Your task to perform on an android device: Clear the shopping cart on ebay.com. Search for "asus zenbook" on ebay.com, select the first entry, and add it to the cart. Image 0: 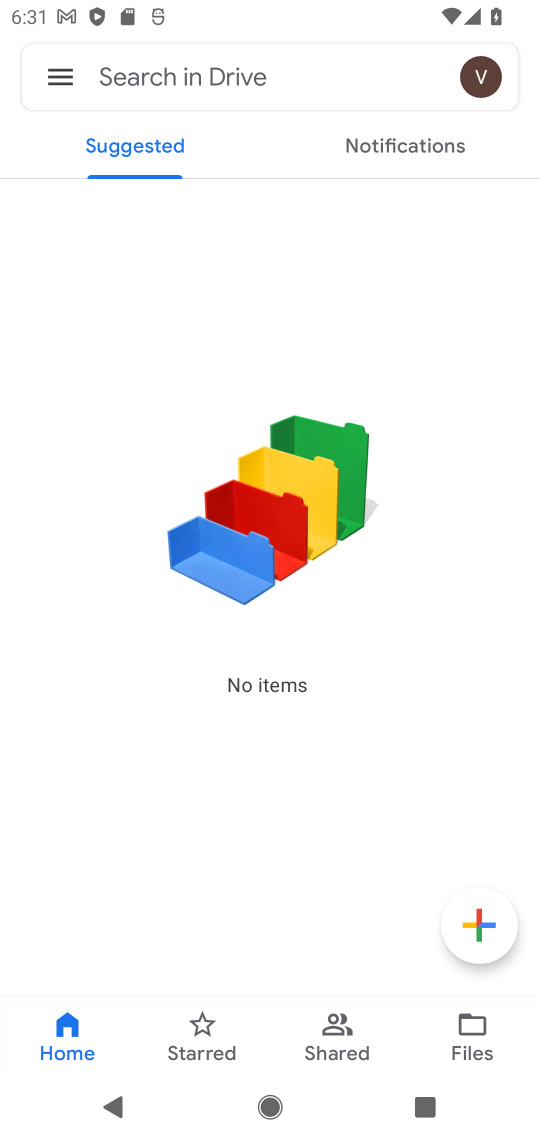
Step 0: press home button
Your task to perform on an android device: Clear the shopping cart on ebay.com. Search for "asus zenbook" on ebay.com, select the first entry, and add it to the cart. Image 1: 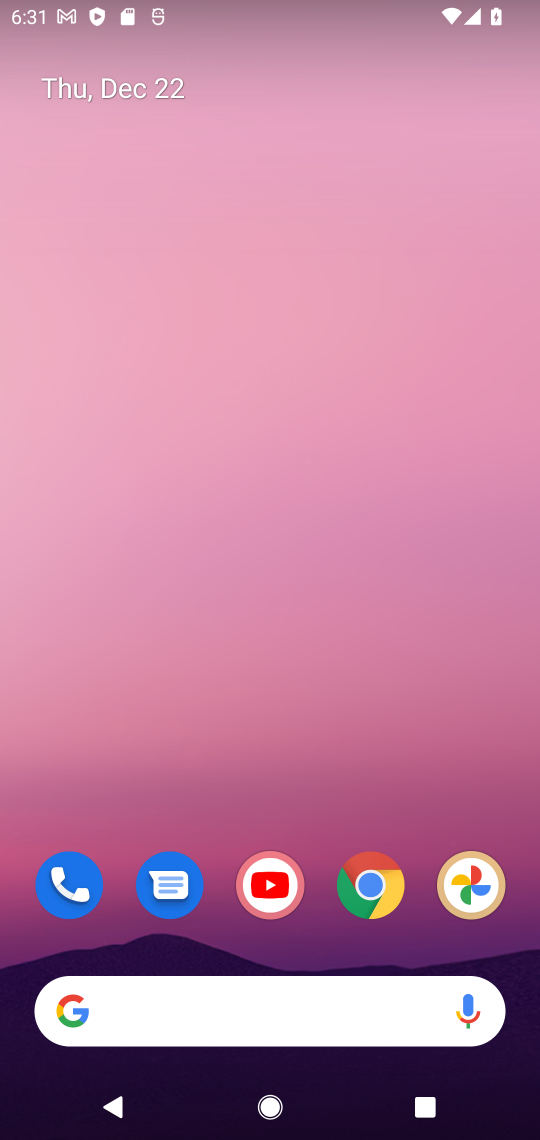
Step 1: click (378, 896)
Your task to perform on an android device: Clear the shopping cart on ebay.com. Search for "asus zenbook" on ebay.com, select the first entry, and add it to the cart. Image 2: 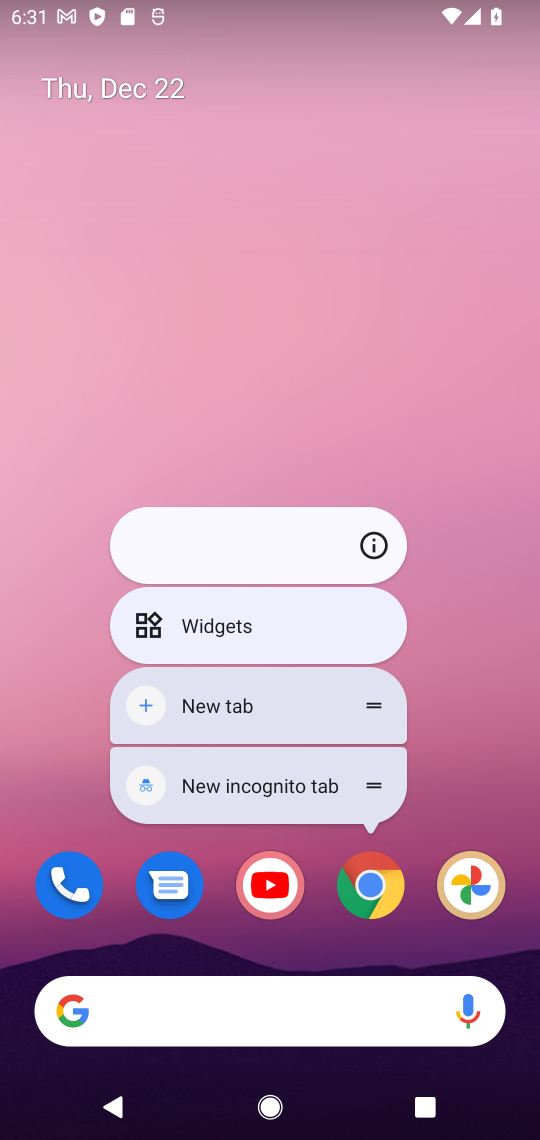
Step 2: click (378, 896)
Your task to perform on an android device: Clear the shopping cart on ebay.com. Search for "asus zenbook" on ebay.com, select the first entry, and add it to the cart. Image 3: 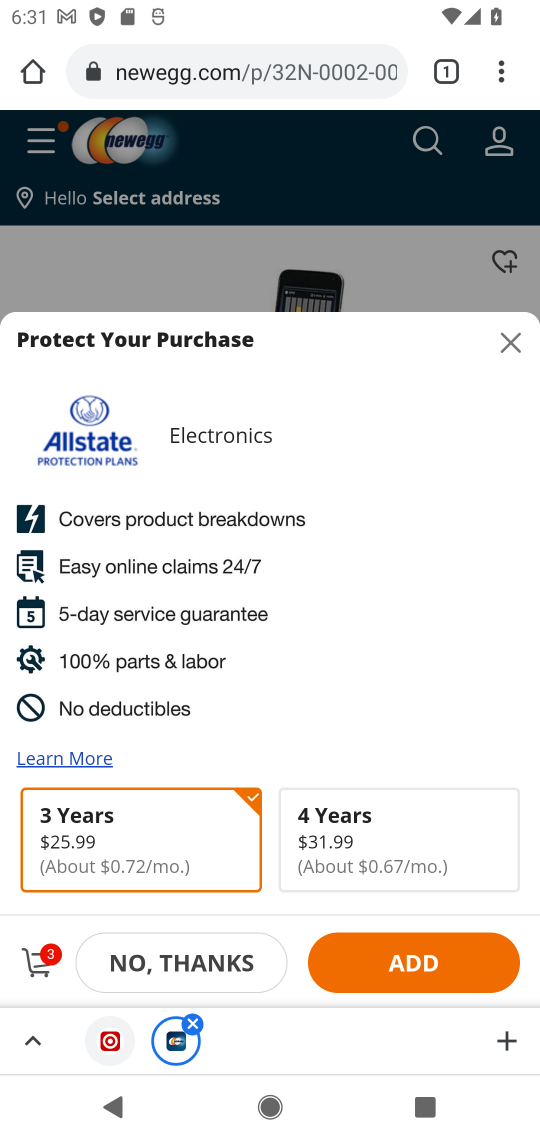
Step 3: click (183, 76)
Your task to perform on an android device: Clear the shopping cart on ebay.com. Search for "asus zenbook" on ebay.com, select the first entry, and add it to the cart. Image 4: 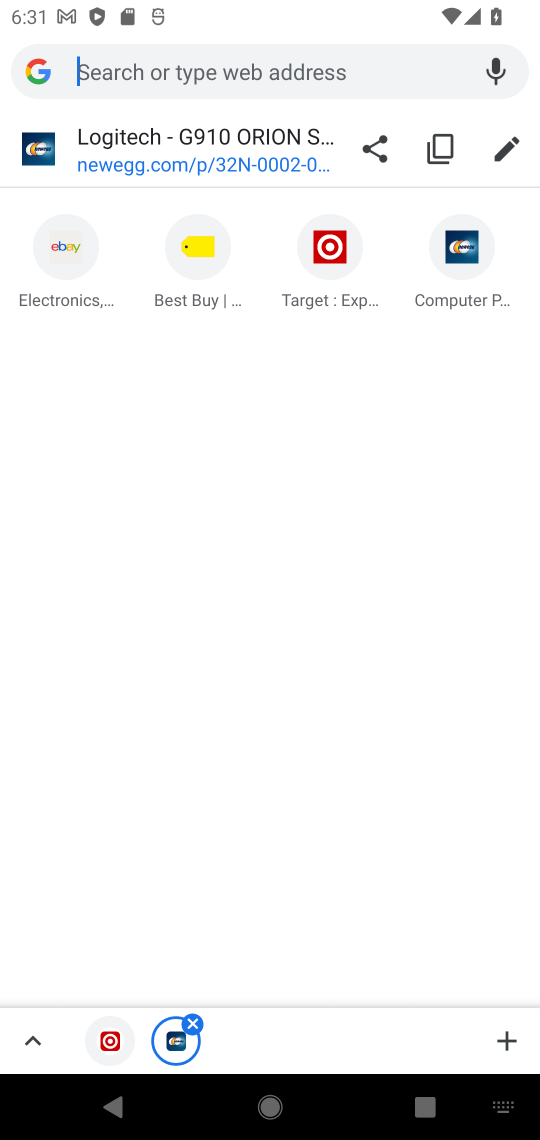
Step 4: click (58, 266)
Your task to perform on an android device: Clear the shopping cart on ebay.com. Search for "asus zenbook" on ebay.com, select the first entry, and add it to the cart. Image 5: 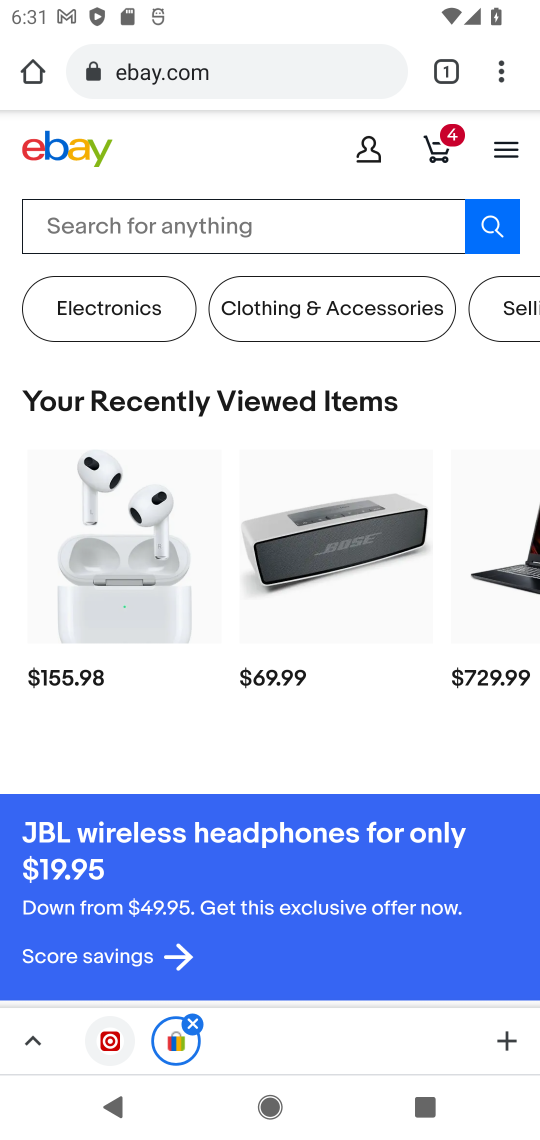
Step 5: click (443, 144)
Your task to perform on an android device: Clear the shopping cart on ebay.com. Search for "asus zenbook" on ebay.com, select the first entry, and add it to the cart. Image 6: 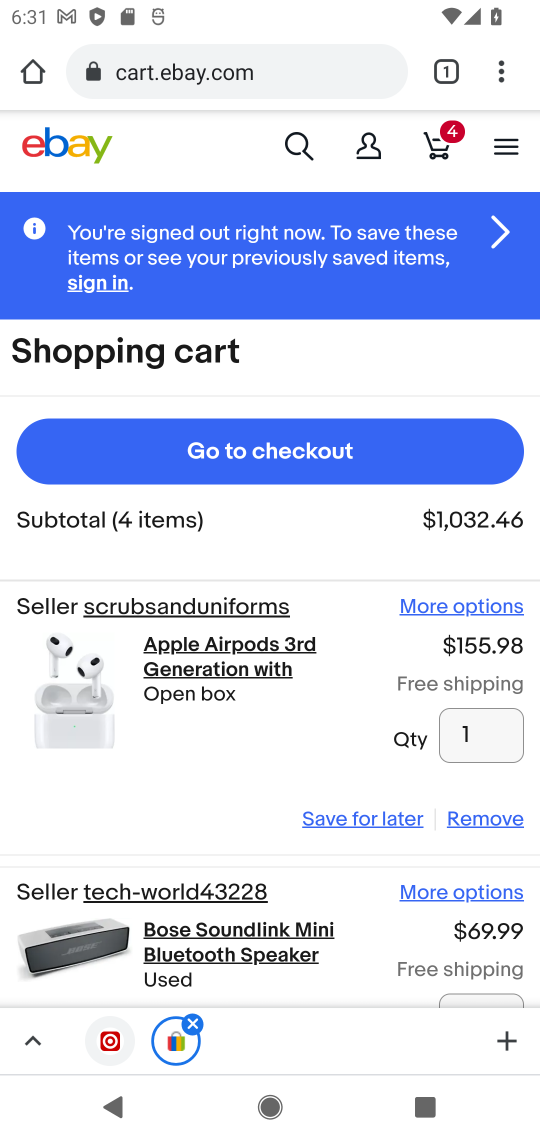
Step 6: click (473, 823)
Your task to perform on an android device: Clear the shopping cart on ebay.com. Search for "asus zenbook" on ebay.com, select the first entry, and add it to the cart. Image 7: 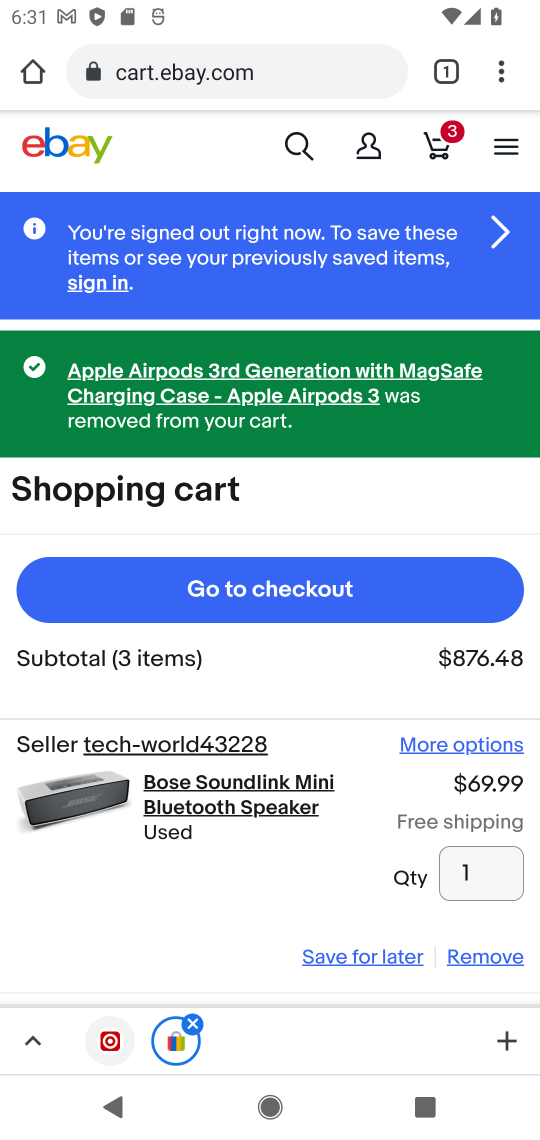
Step 7: click (468, 959)
Your task to perform on an android device: Clear the shopping cart on ebay.com. Search for "asus zenbook" on ebay.com, select the first entry, and add it to the cart. Image 8: 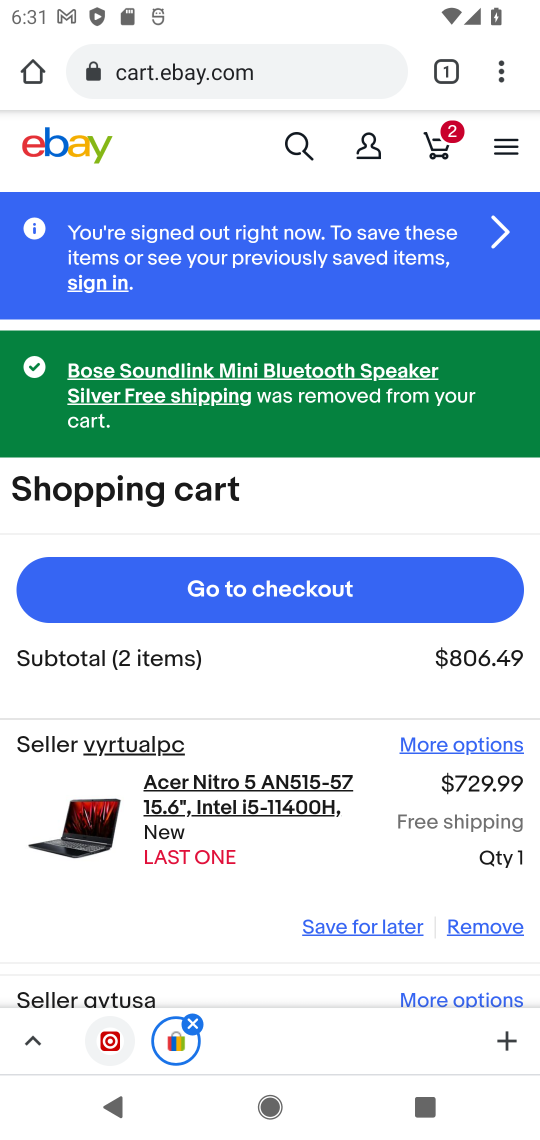
Step 8: click (485, 931)
Your task to perform on an android device: Clear the shopping cart on ebay.com. Search for "asus zenbook" on ebay.com, select the first entry, and add it to the cart. Image 9: 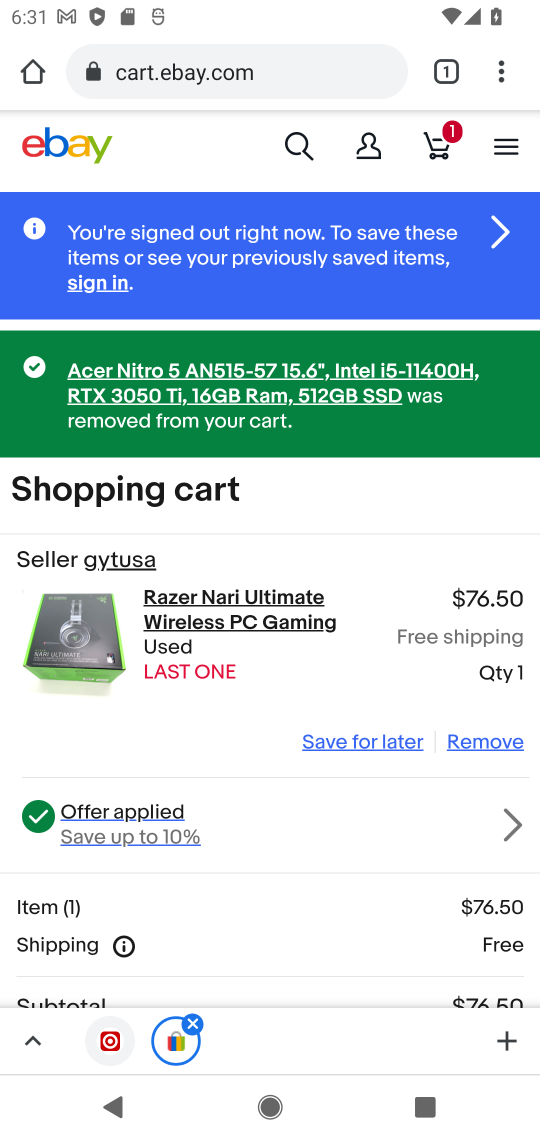
Step 9: click (486, 747)
Your task to perform on an android device: Clear the shopping cart on ebay.com. Search for "asus zenbook" on ebay.com, select the first entry, and add it to the cart. Image 10: 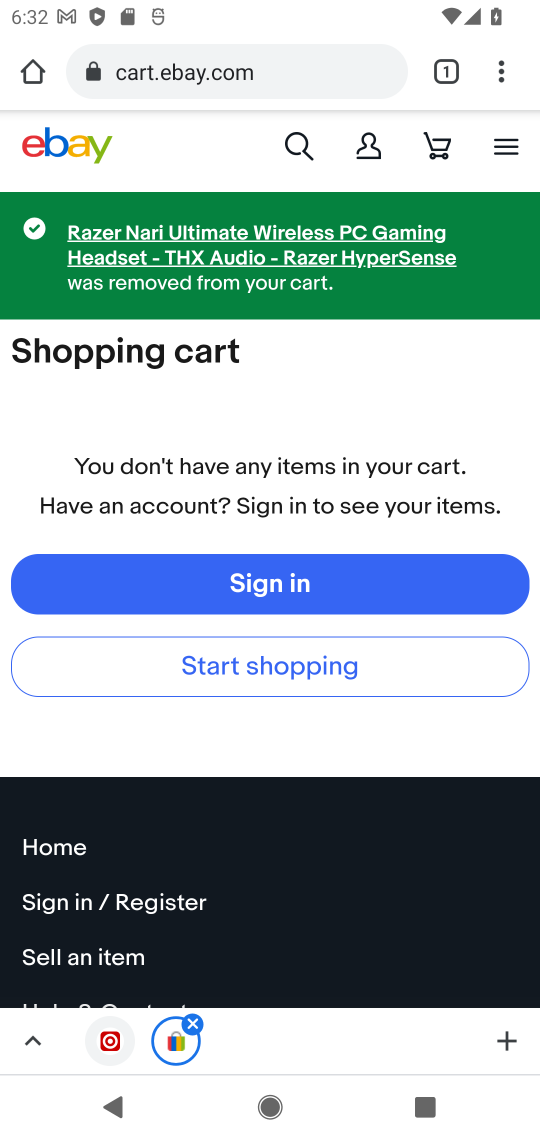
Step 10: click (302, 156)
Your task to perform on an android device: Clear the shopping cart on ebay.com. Search for "asus zenbook" on ebay.com, select the first entry, and add it to the cart. Image 11: 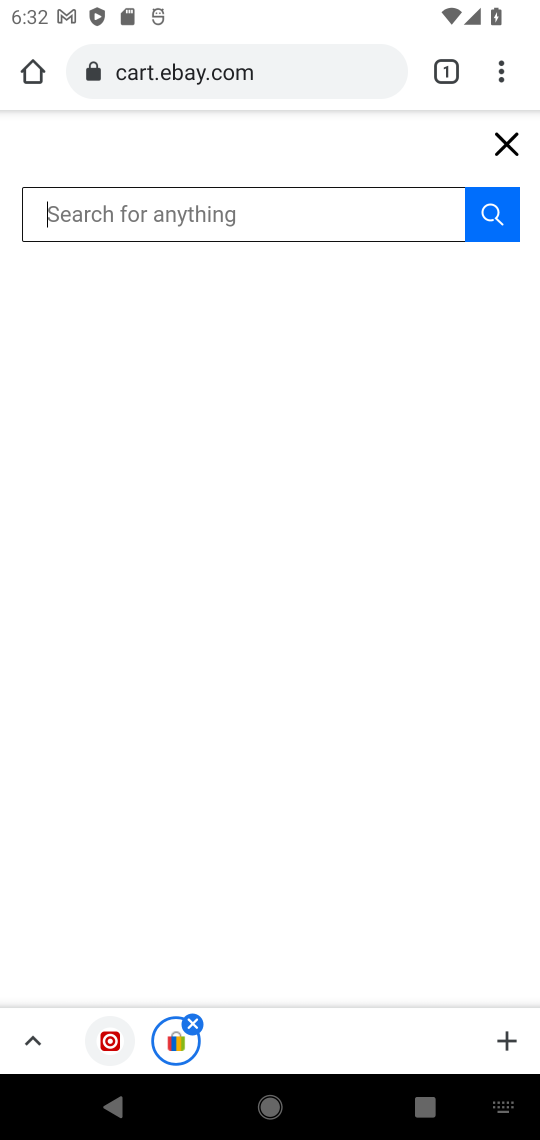
Step 11: type "asus zenbook"
Your task to perform on an android device: Clear the shopping cart on ebay.com. Search for "asus zenbook" on ebay.com, select the first entry, and add it to the cart. Image 12: 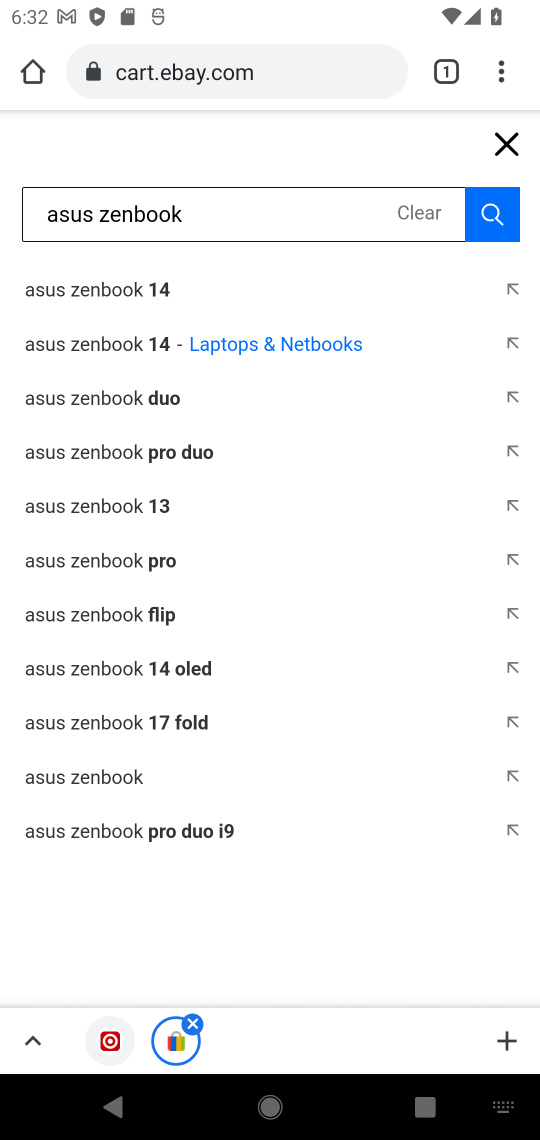
Step 12: click (82, 779)
Your task to perform on an android device: Clear the shopping cart on ebay.com. Search for "asus zenbook" on ebay.com, select the first entry, and add it to the cart. Image 13: 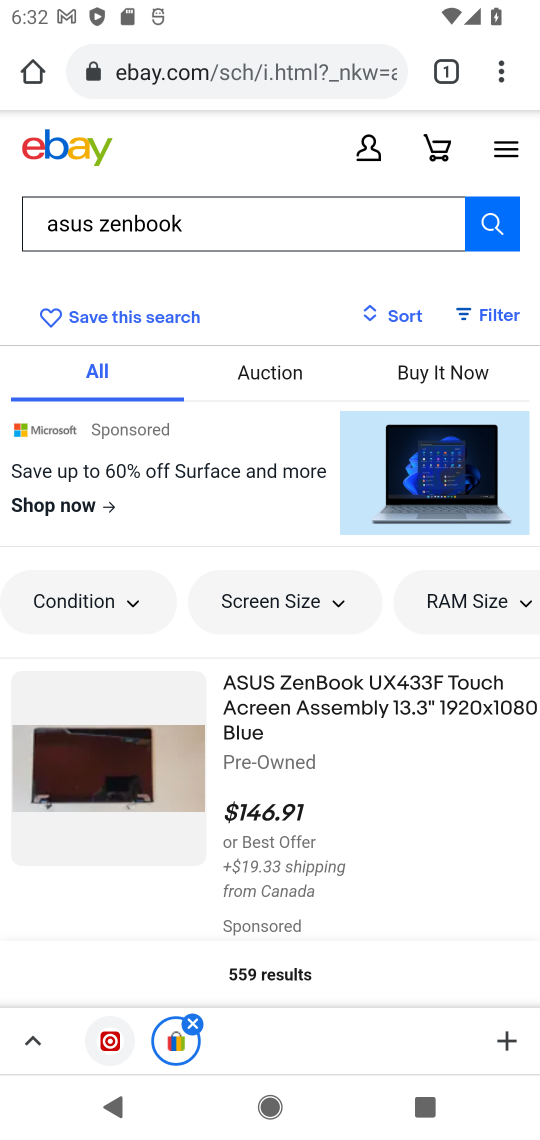
Step 13: click (252, 704)
Your task to perform on an android device: Clear the shopping cart on ebay.com. Search for "asus zenbook" on ebay.com, select the first entry, and add it to the cart. Image 14: 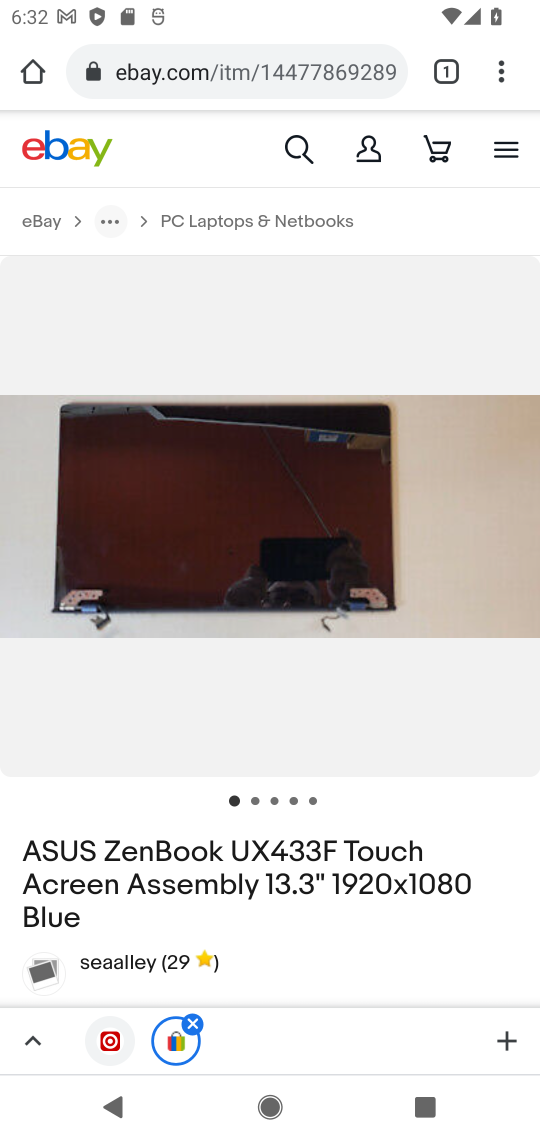
Step 14: drag from (230, 816) to (235, 231)
Your task to perform on an android device: Clear the shopping cart on ebay.com. Search for "asus zenbook" on ebay.com, select the first entry, and add it to the cart. Image 15: 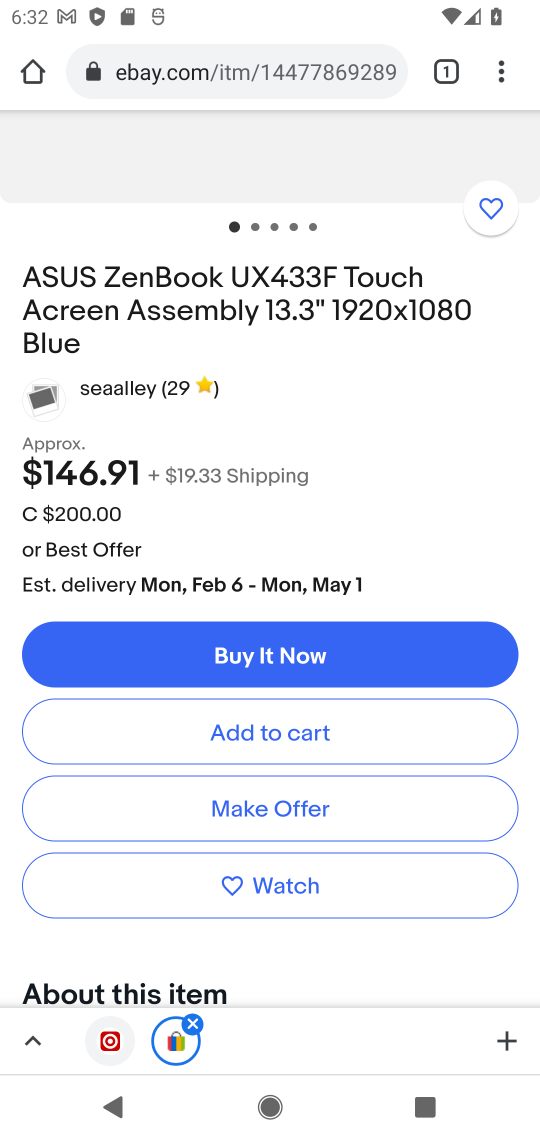
Step 15: click (231, 730)
Your task to perform on an android device: Clear the shopping cart on ebay.com. Search for "asus zenbook" on ebay.com, select the first entry, and add it to the cart. Image 16: 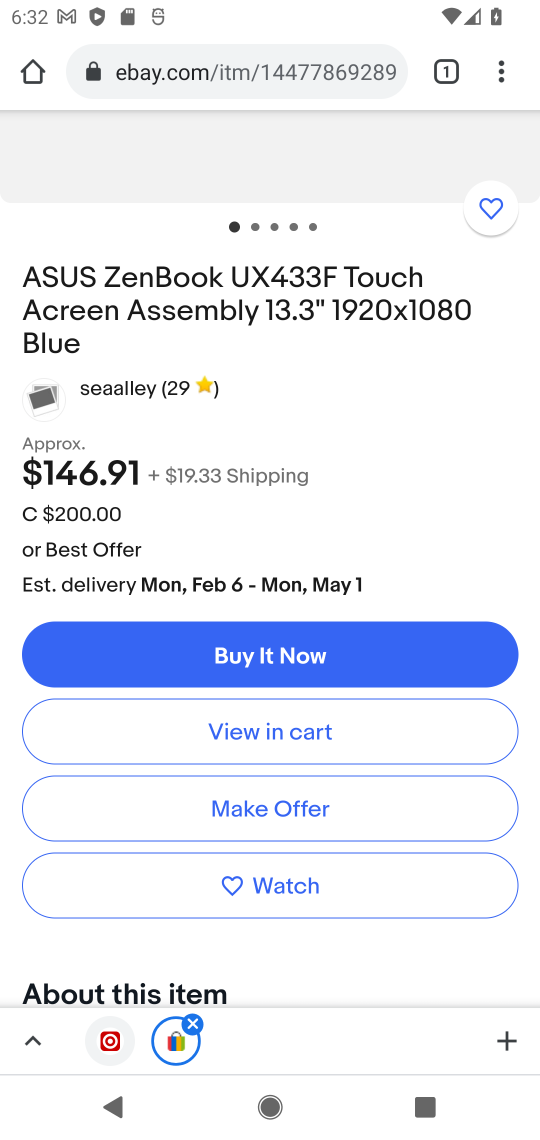
Step 16: task complete